Your task to perform on an android device: turn on showing notifications on the lock screen Image 0: 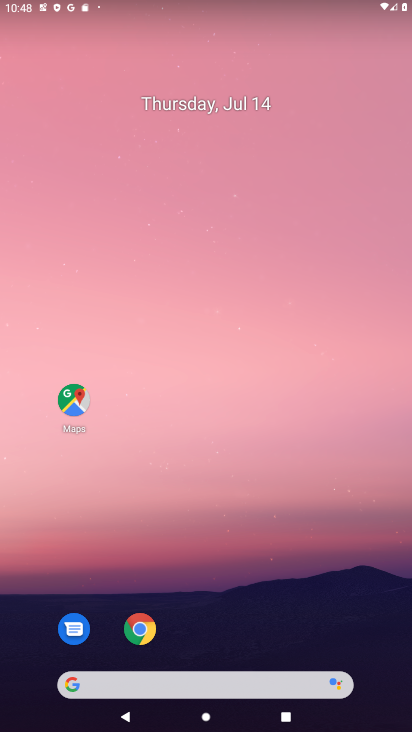
Step 0: drag from (25, 577) to (206, 74)
Your task to perform on an android device: turn on showing notifications on the lock screen Image 1: 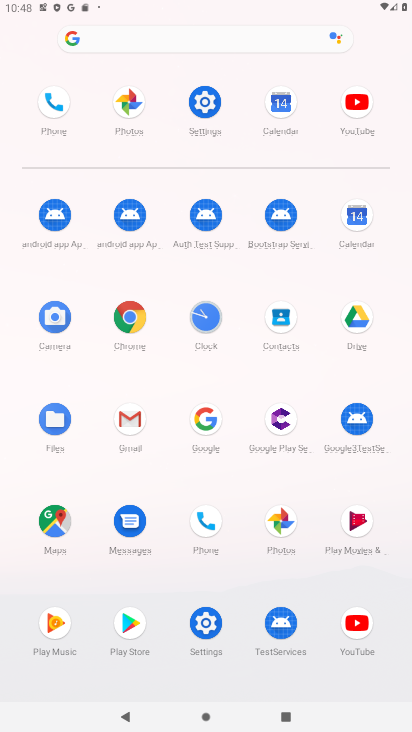
Step 1: click (194, 108)
Your task to perform on an android device: turn on showing notifications on the lock screen Image 2: 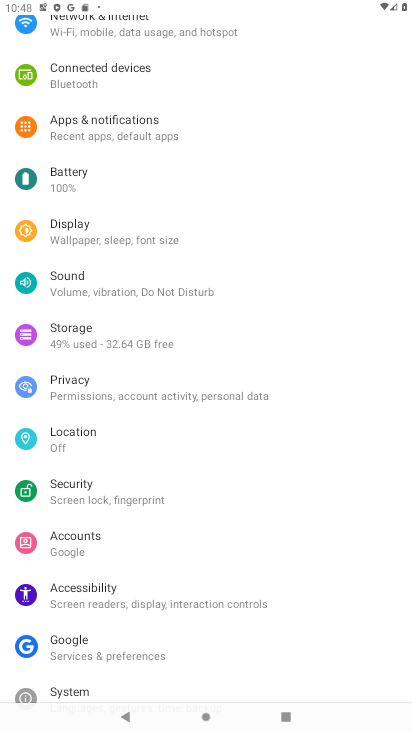
Step 2: click (130, 126)
Your task to perform on an android device: turn on showing notifications on the lock screen Image 3: 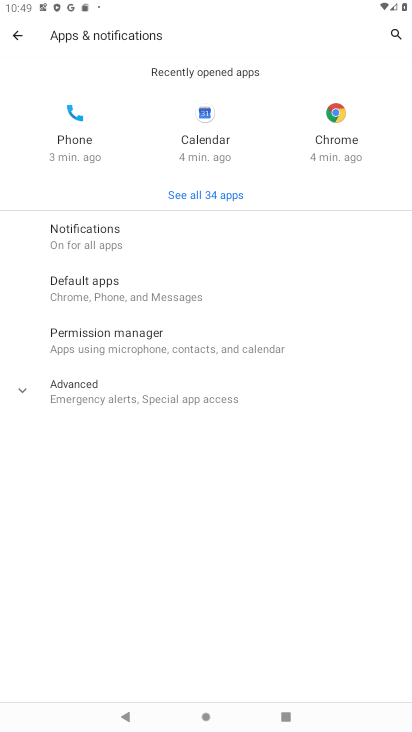
Step 3: click (123, 266)
Your task to perform on an android device: turn on showing notifications on the lock screen Image 4: 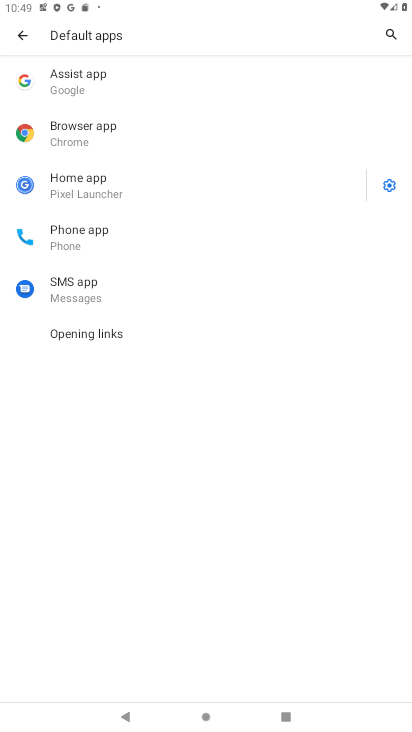
Step 4: click (29, 30)
Your task to perform on an android device: turn on showing notifications on the lock screen Image 5: 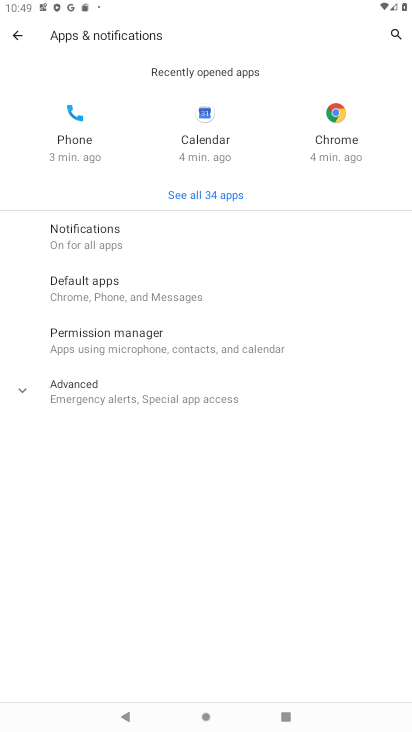
Step 5: click (92, 234)
Your task to perform on an android device: turn on showing notifications on the lock screen Image 6: 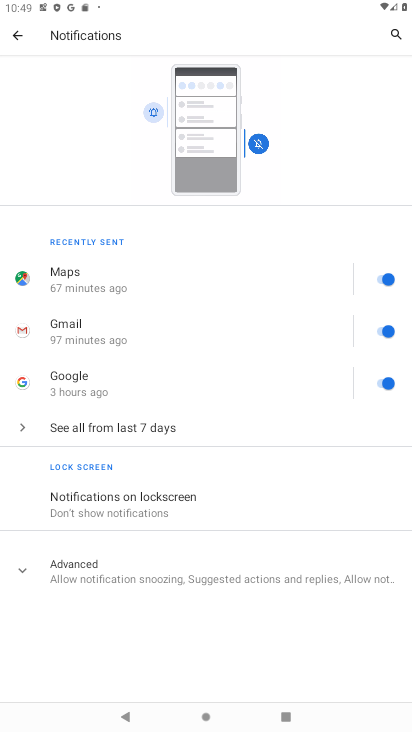
Step 6: click (157, 512)
Your task to perform on an android device: turn on showing notifications on the lock screen Image 7: 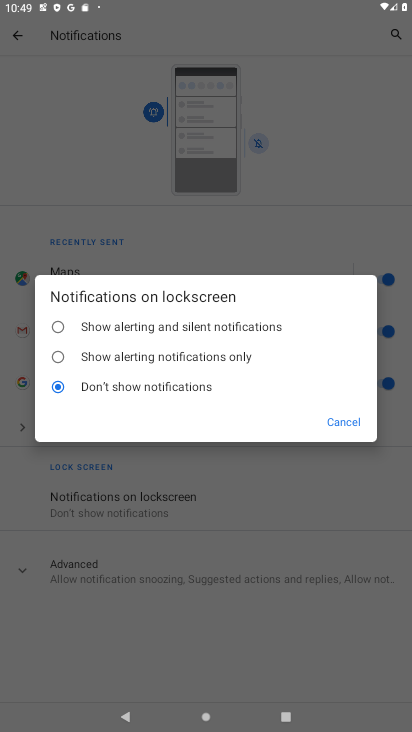
Step 7: click (127, 333)
Your task to perform on an android device: turn on showing notifications on the lock screen Image 8: 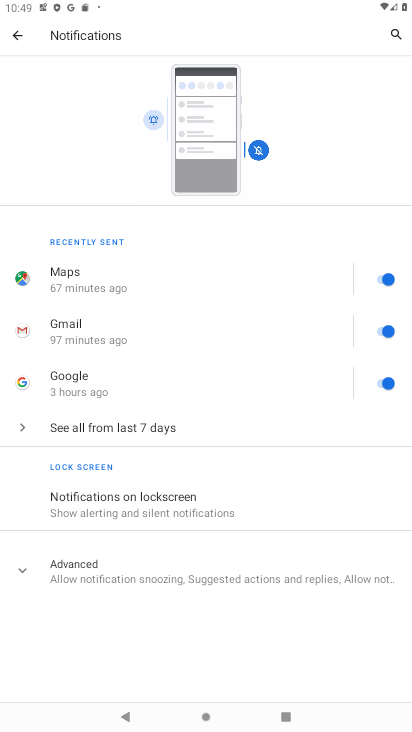
Step 8: task complete